Your task to perform on an android device: Open Youtube and go to "Your channel" Image 0: 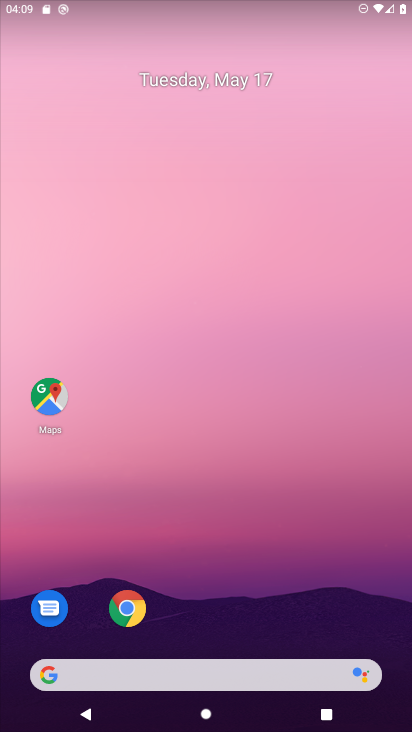
Step 0: drag from (175, 667) to (230, 258)
Your task to perform on an android device: Open Youtube and go to "Your channel" Image 1: 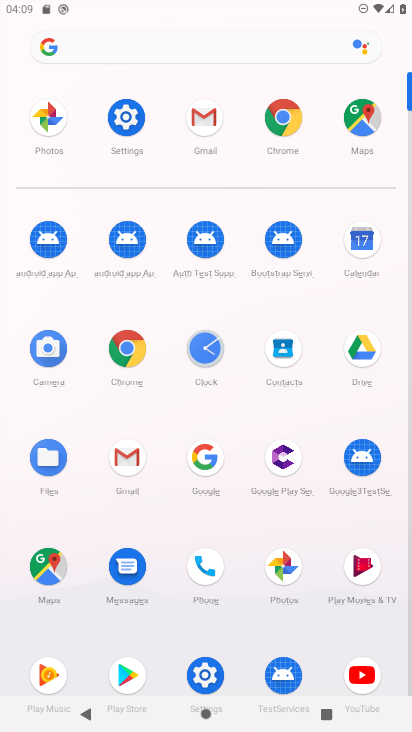
Step 1: click (363, 680)
Your task to perform on an android device: Open Youtube and go to "Your channel" Image 2: 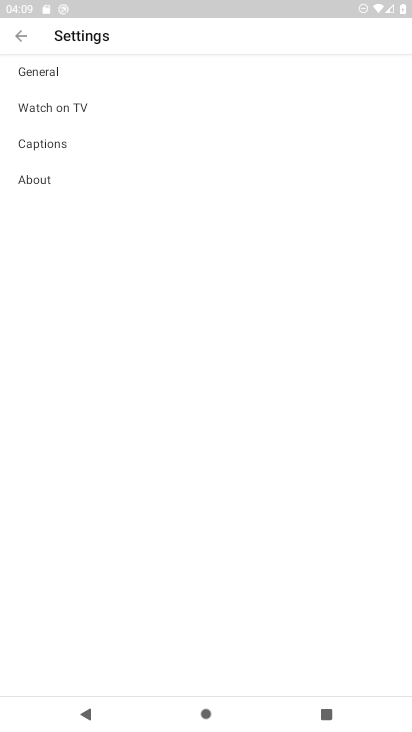
Step 2: click (18, 41)
Your task to perform on an android device: Open Youtube and go to "Your channel" Image 3: 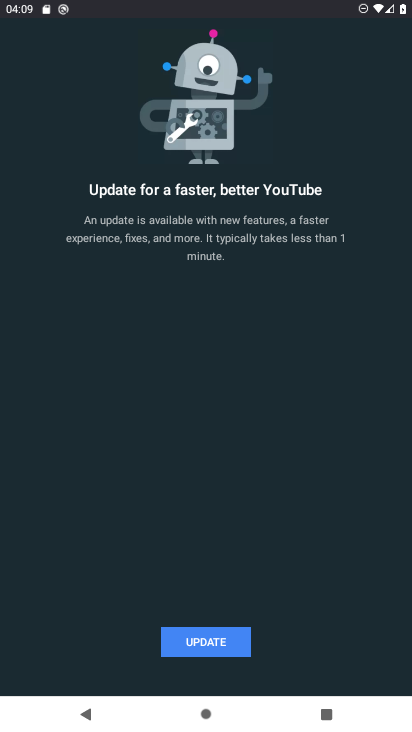
Step 3: click (206, 645)
Your task to perform on an android device: Open Youtube and go to "Your channel" Image 4: 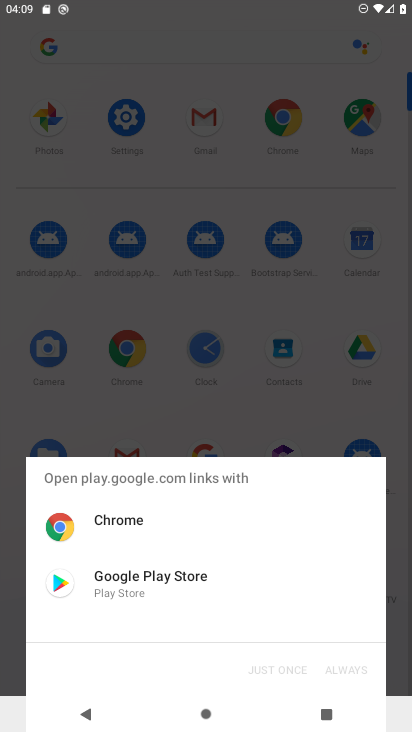
Step 4: click (202, 579)
Your task to perform on an android device: Open Youtube and go to "Your channel" Image 5: 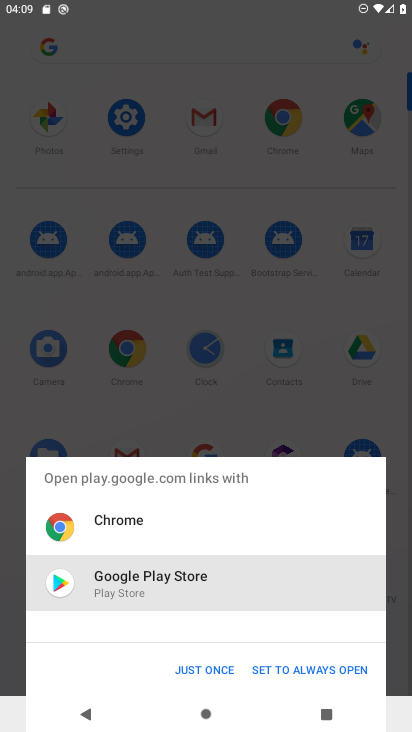
Step 5: click (355, 664)
Your task to perform on an android device: Open Youtube and go to "Your channel" Image 6: 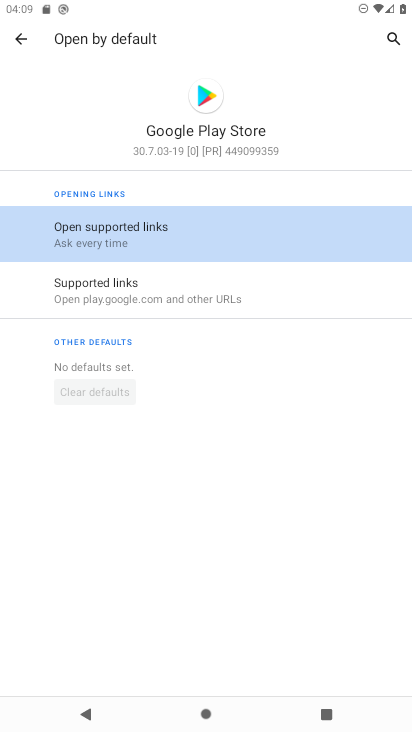
Step 6: click (213, 125)
Your task to perform on an android device: Open Youtube and go to "Your channel" Image 7: 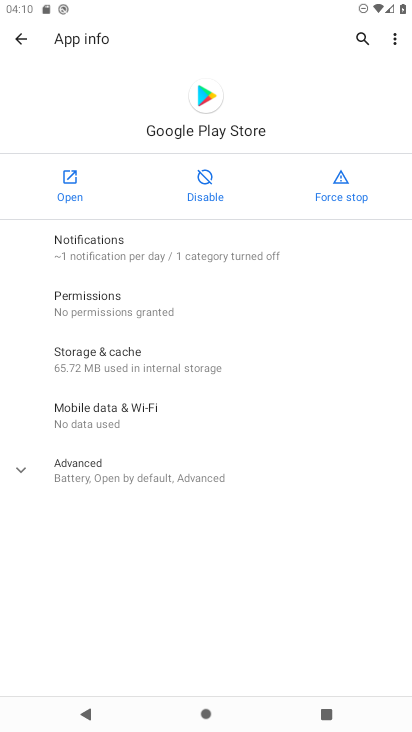
Step 7: click (72, 177)
Your task to perform on an android device: Open Youtube and go to "Your channel" Image 8: 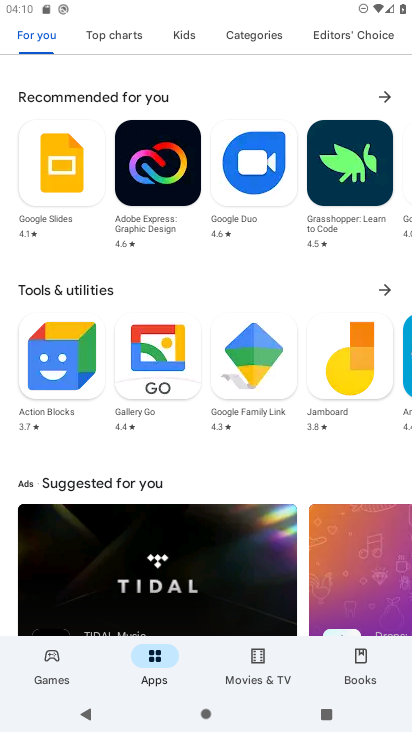
Step 8: drag from (241, 105) to (236, 434)
Your task to perform on an android device: Open Youtube and go to "Your channel" Image 9: 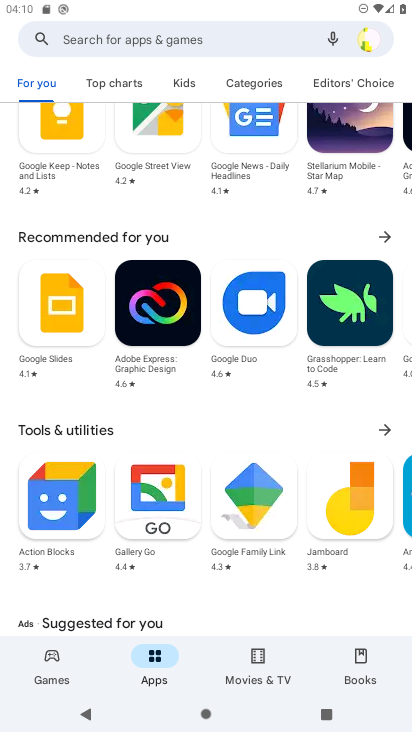
Step 9: click (221, 34)
Your task to perform on an android device: Open Youtube and go to "Your channel" Image 10: 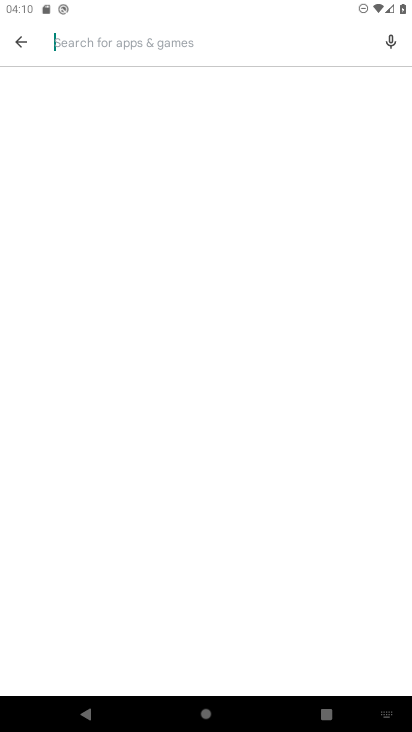
Step 10: type "youtube"
Your task to perform on an android device: Open Youtube and go to "Your channel" Image 11: 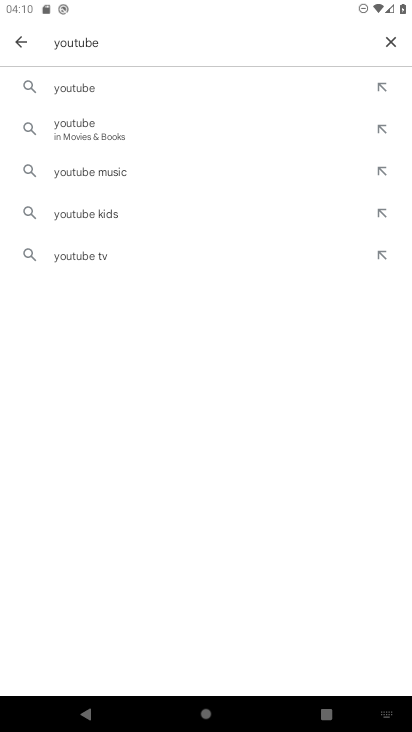
Step 11: click (44, 92)
Your task to perform on an android device: Open Youtube and go to "Your channel" Image 12: 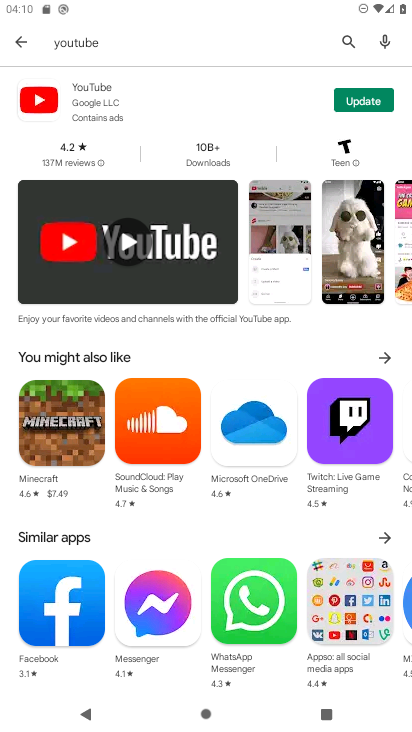
Step 12: click (358, 96)
Your task to perform on an android device: Open Youtube and go to "Your channel" Image 13: 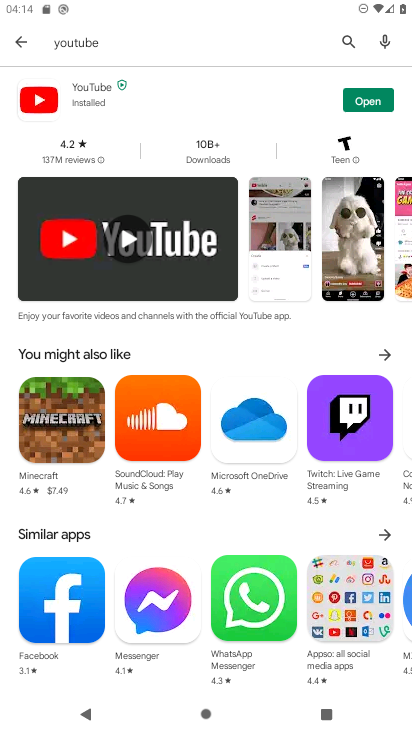
Step 13: click (356, 89)
Your task to perform on an android device: Open Youtube and go to "Your channel" Image 14: 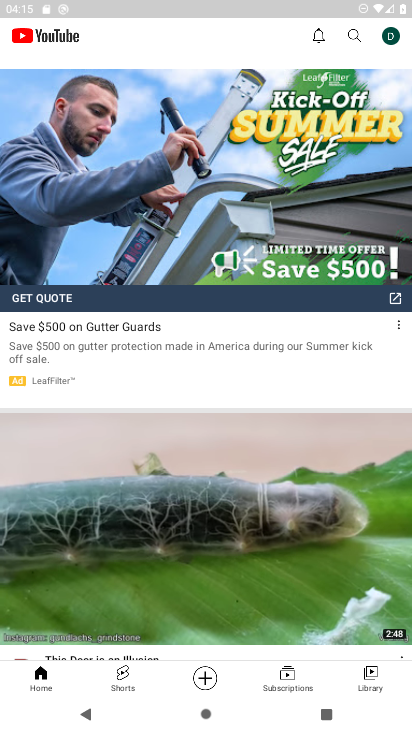
Step 14: click (392, 34)
Your task to perform on an android device: Open Youtube and go to "Your channel" Image 15: 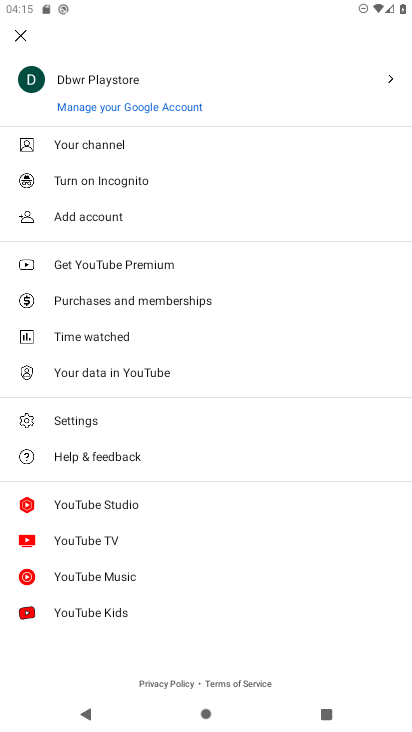
Step 15: click (117, 149)
Your task to perform on an android device: Open Youtube and go to "Your channel" Image 16: 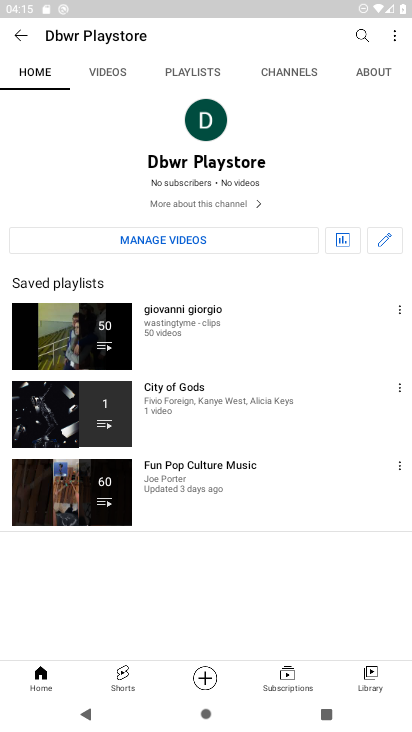
Step 16: task complete